Your task to perform on an android device: What's on my calendar today? Image 0: 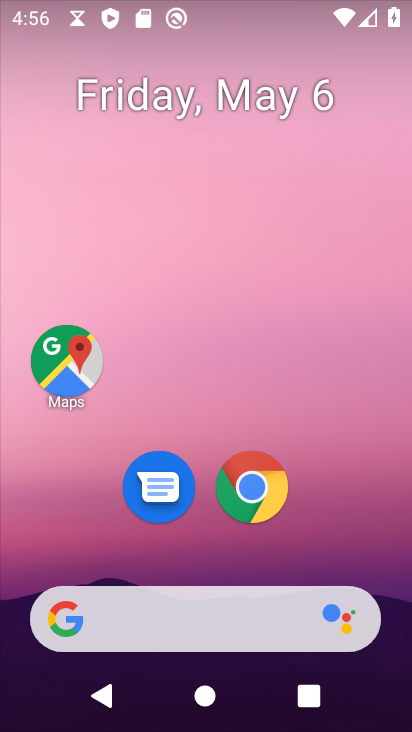
Step 0: drag from (189, 375) to (351, 5)
Your task to perform on an android device: What's on my calendar today? Image 1: 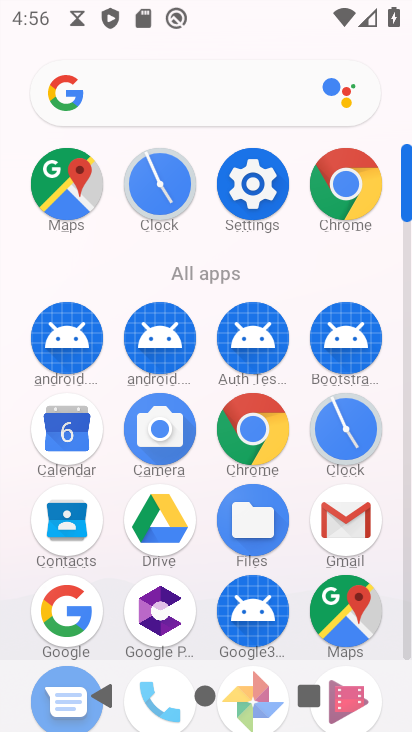
Step 1: click (69, 428)
Your task to perform on an android device: What's on my calendar today? Image 2: 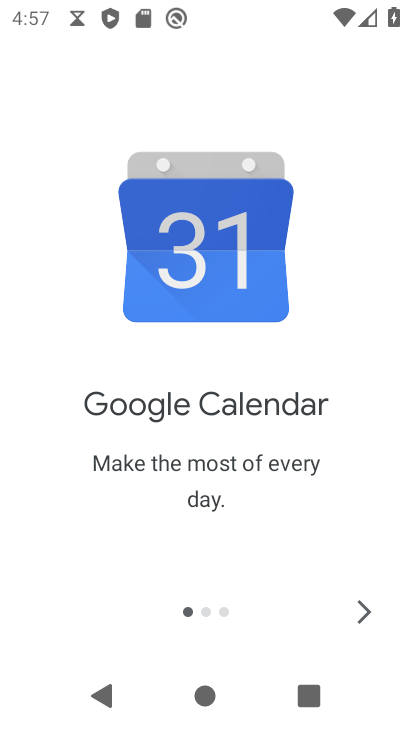
Step 2: click (363, 613)
Your task to perform on an android device: What's on my calendar today? Image 3: 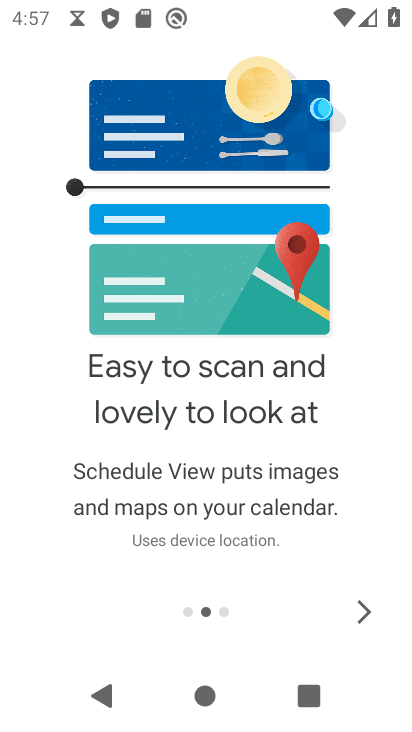
Step 3: click (369, 611)
Your task to perform on an android device: What's on my calendar today? Image 4: 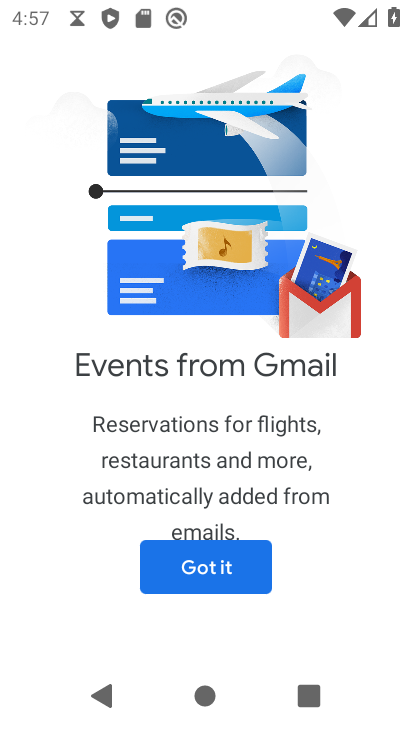
Step 4: click (206, 573)
Your task to perform on an android device: What's on my calendar today? Image 5: 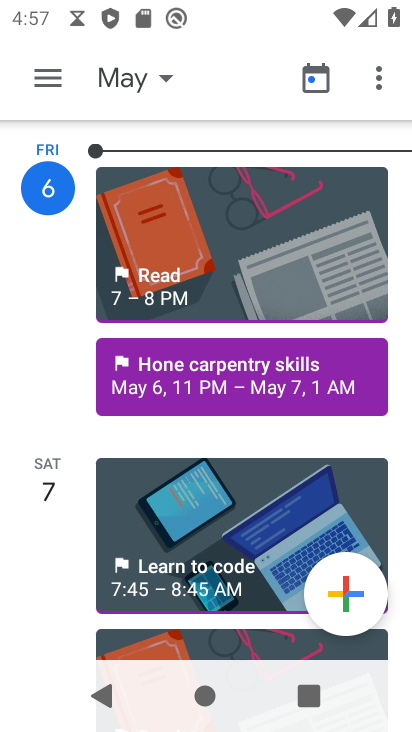
Step 5: click (188, 340)
Your task to perform on an android device: What's on my calendar today? Image 6: 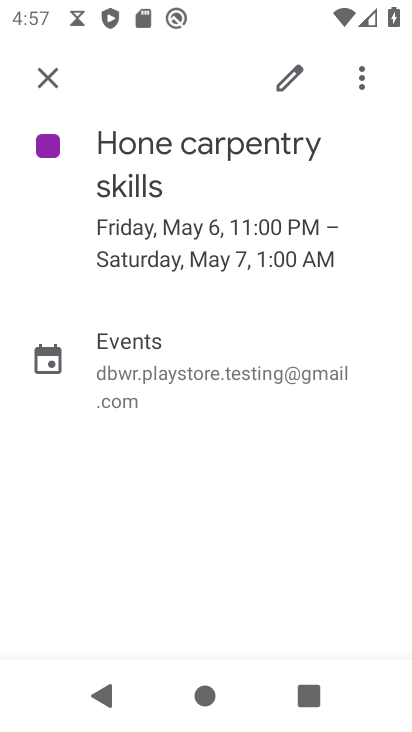
Step 6: task complete